Your task to perform on an android device: turn on wifi Image 0: 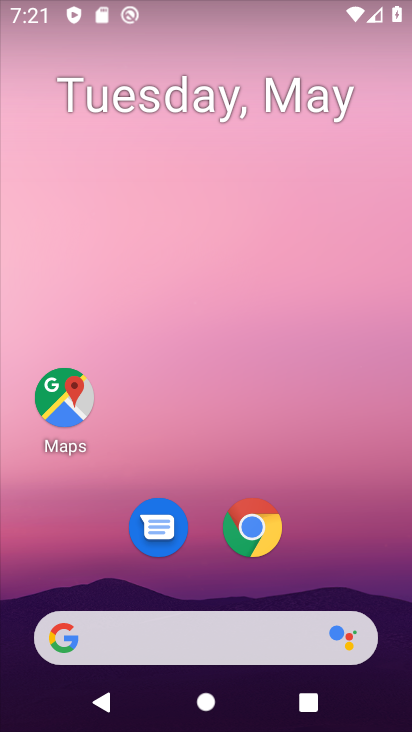
Step 0: drag from (318, 566) to (264, 160)
Your task to perform on an android device: turn on wifi Image 1: 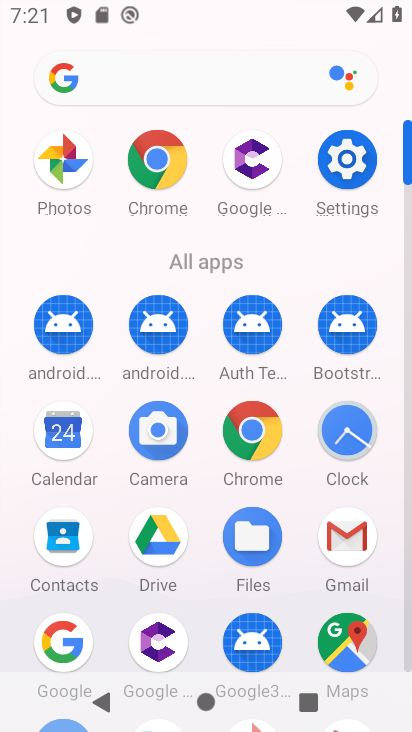
Step 1: click (350, 158)
Your task to perform on an android device: turn on wifi Image 2: 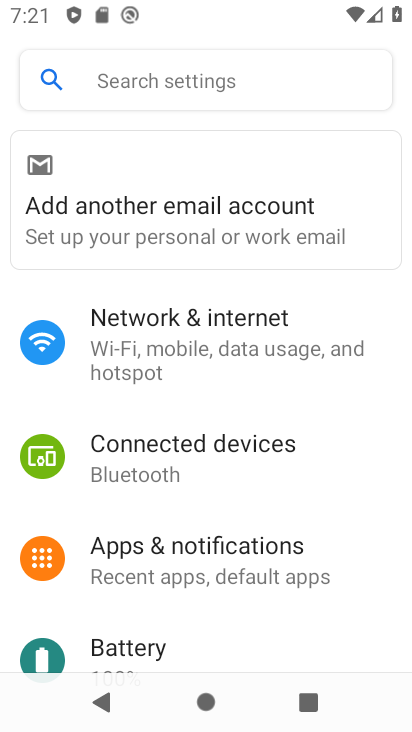
Step 2: click (237, 323)
Your task to perform on an android device: turn on wifi Image 3: 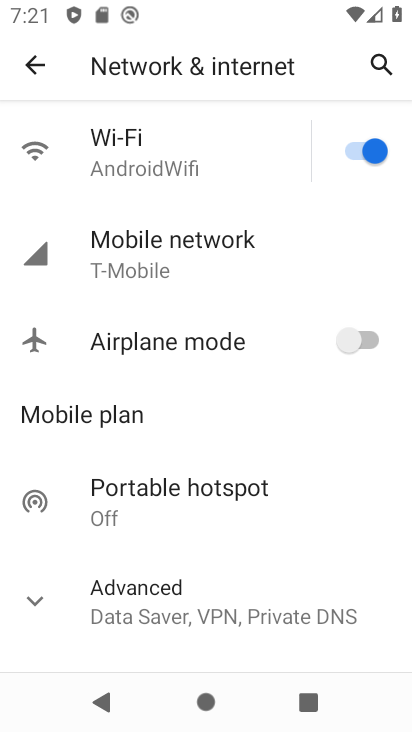
Step 3: task complete